Your task to perform on an android device: Search for 4k TVs on Best Buy. Image 0: 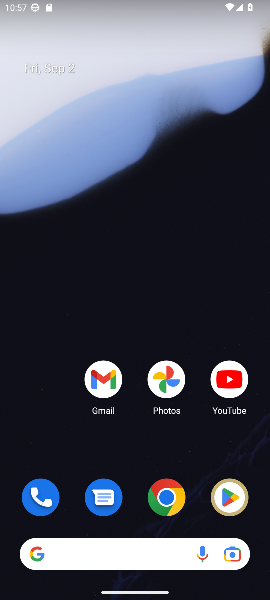
Step 0: drag from (131, 510) to (129, 179)
Your task to perform on an android device: Search for 4k TVs on Best Buy. Image 1: 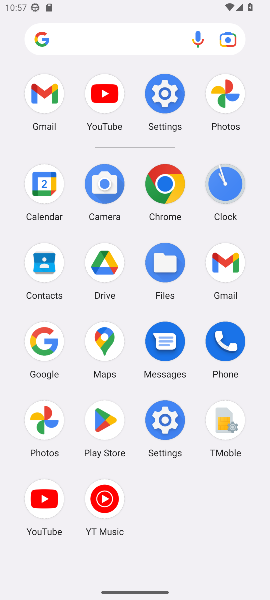
Step 1: press home button
Your task to perform on an android device: Search for 4k TVs on Best Buy. Image 2: 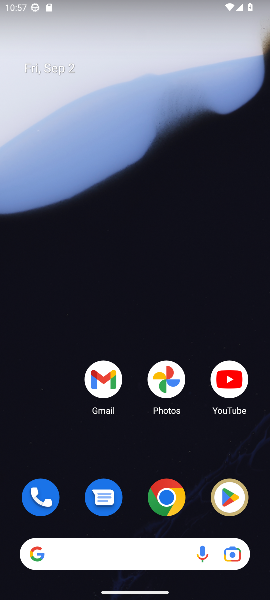
Step 2: drag from (125, 531) to (121, 135)
Your task to perform on an android device: Search for 4k TVs on Best Buy. Image 3: 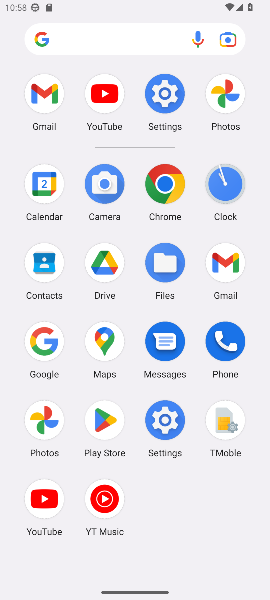
Step 3: click (38, 336)
Your task to perform on an android device: Search for 4k TVs on Best Buy. Image 4: 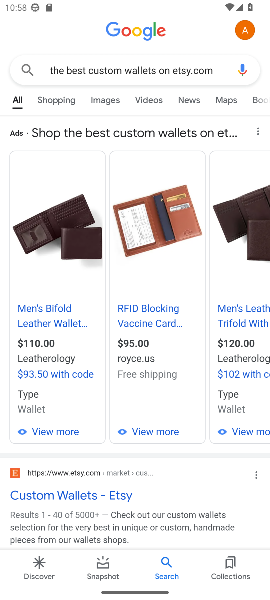
Step 4: click (114, 64)
Your task to perform on an android device: Search for 4k TVs on Best Buy. Image 5: 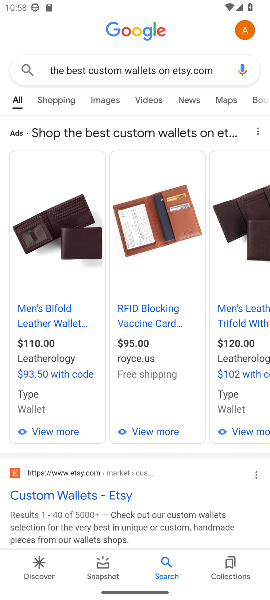
Step 5: click (114, 64)
Your task to perform on an android device: Search for 4k TVs on Best Buy. Image 6: 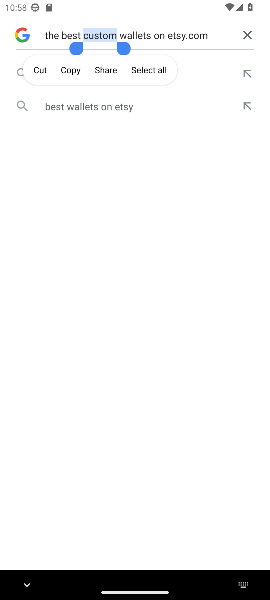
Step 6: click (244, 36)
Your task to perform on an android device: Search for 4k TVs on Best Buy. Image 7: 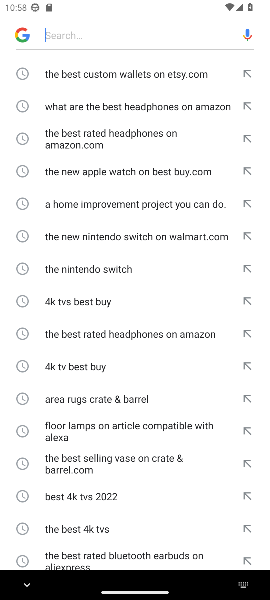
Step 7: type "4k TVs on Best Buy."
Your task to perform on an android device: Search for 4k TVs on Best Buy. Image 8: 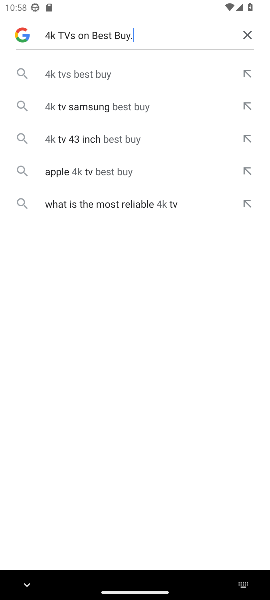
Step 8: click (88, 72)
Your task to perform on an android device: Search for 4k TVs on Best Buy. Image 9: 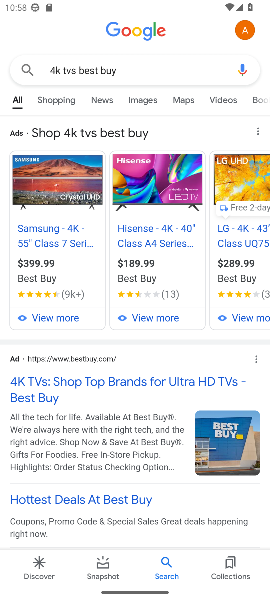
Step 9: task complete